Your task to perform on an android device: Open calendar and show me the third week of next month Image 0: 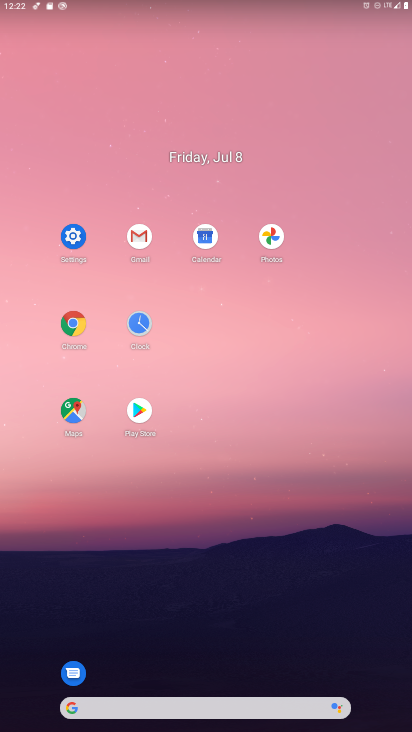
Step 0: click (201, 240)
Your task to perform on an android device: Open calendar and show me the third week of next month Image 1: 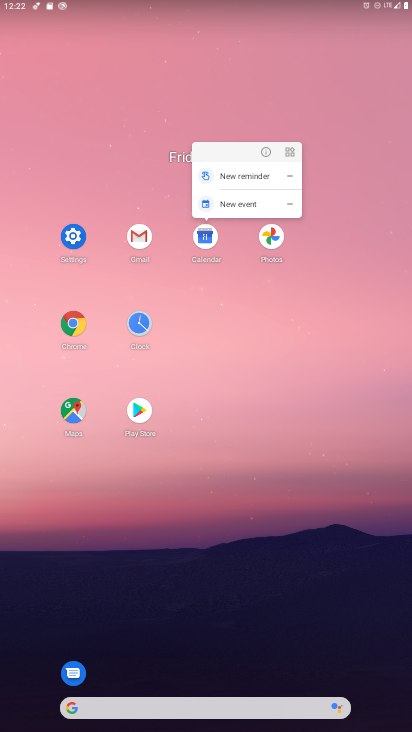
Step 1: click (208, 246)
Your task to perform on an android device: Open calendar and show me the third week of next month Image 2: 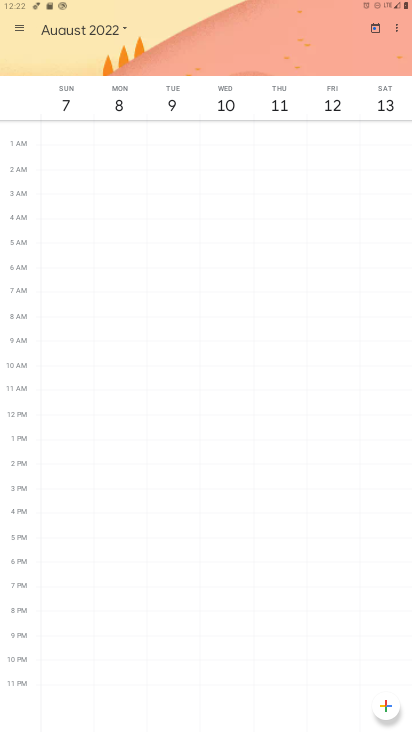
Step 2: click (12, 30)
Your task to perform on an android device: Open calendar and show me the third week of next month Image 3: 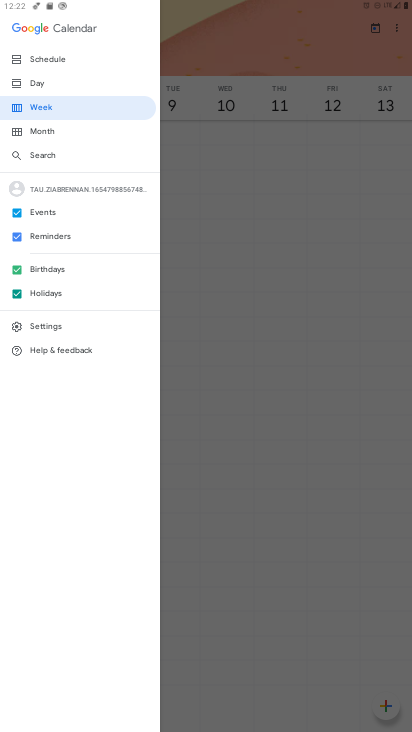
Step 3: click (47, 100)
Your task to perform on an android device: Open calendar and show me the third week of next month Image 4: 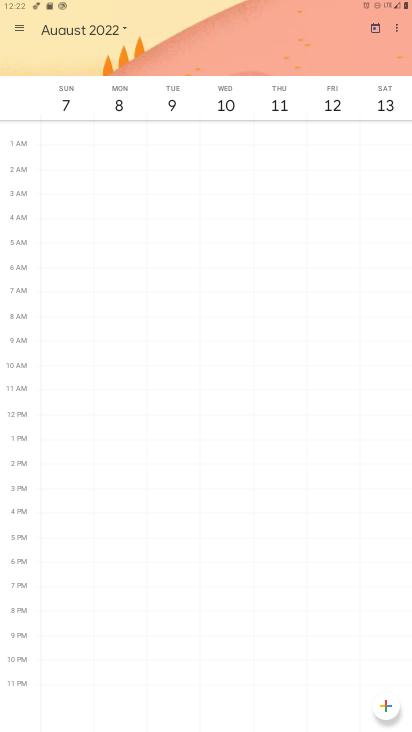
Step 4: task complete